Your task to perform on an android device: Open calendar and show me the fourth week of next month Image 0: 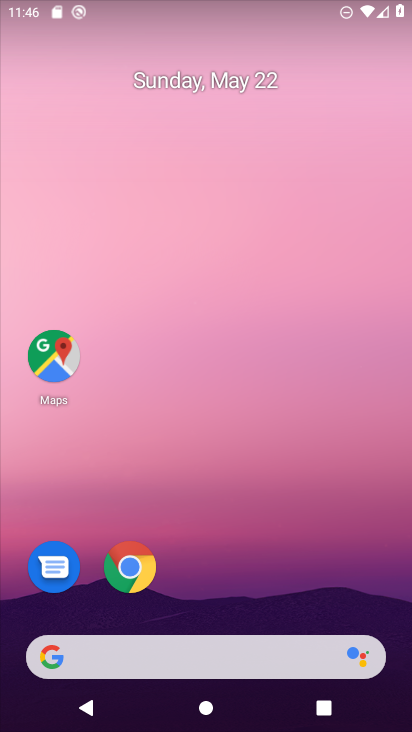
Step 0: click (182, 89)
Your task to perform on an android device: Open calendar and show me the fourth week of next month Image 1: 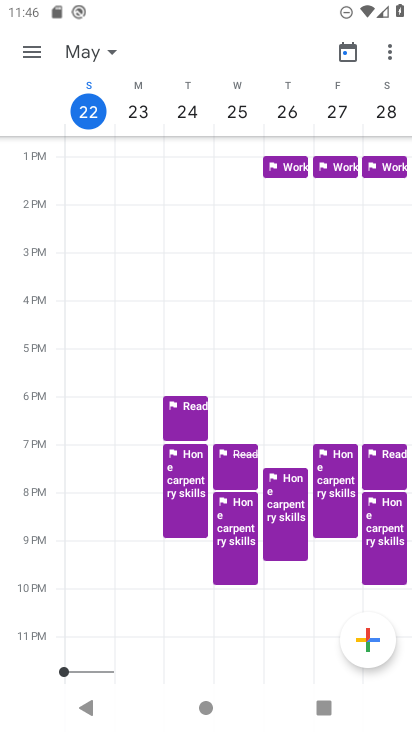
Step 1: click (82, 57)
Your task to perform on an android device: Open calendar and show me the fourth week of next month Image 2: 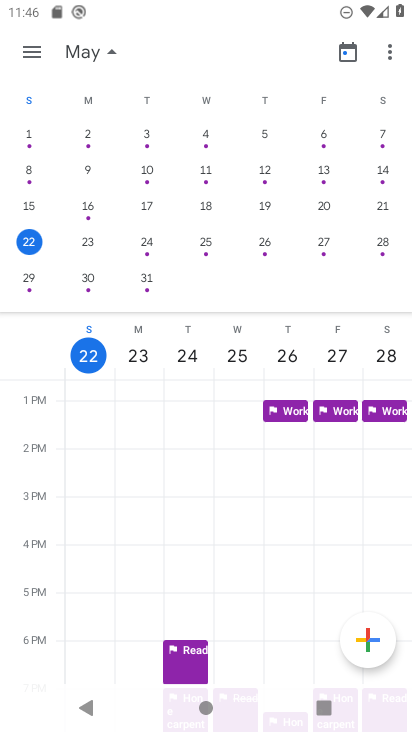
Step 2: drag from (348, 275) to (107, 341)
Your task to perform on an android device: Open calendar and show me the fourth week of next month Image 3: 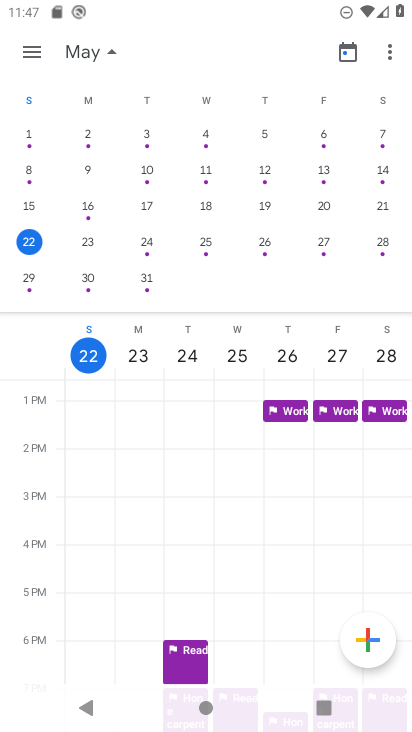
Step 3: drag from (381, 271) to (102, 290)
Your task to perform on an android device: Open calendar and show me the fourth week of next month Image 4: 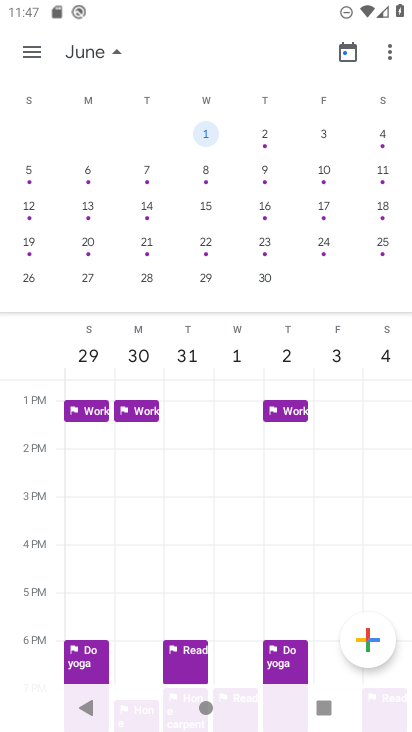
Step 4: click (210, 245)
Your task to perform on an android device: Open calendar and show me the fourth week of next month Image 5: 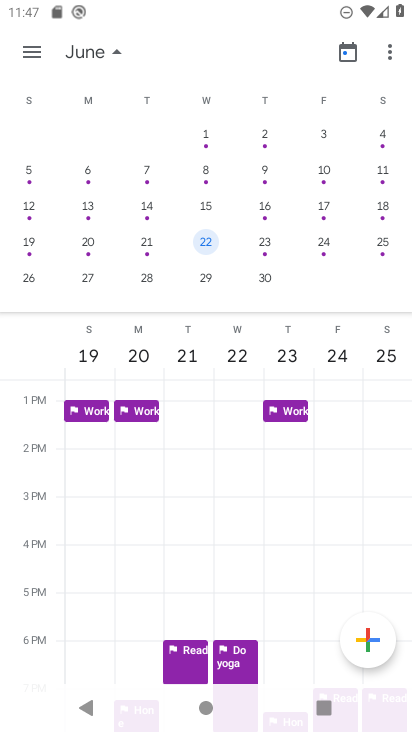
Step 5: task complete